Your task to perform on an android device: Open settings on Google Maps Image 0: 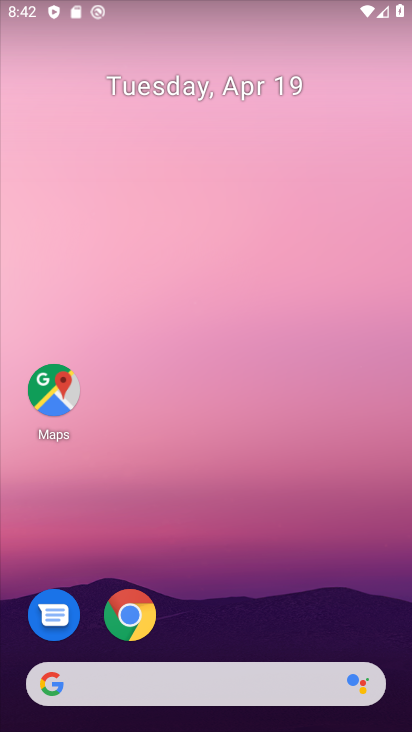
Step 0: click (38, 373)
Your task to perform on an android device: Open settings on Google Maps Image 1: 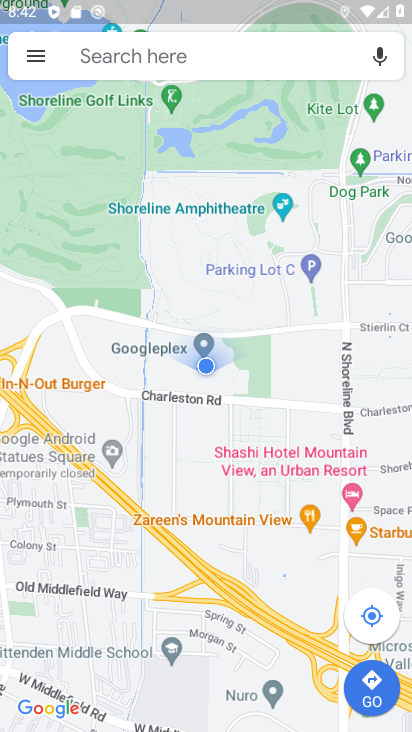
Step 1: click (36, 53)
Your task to perform on an android device: Open settings on Google Maps Image 2: 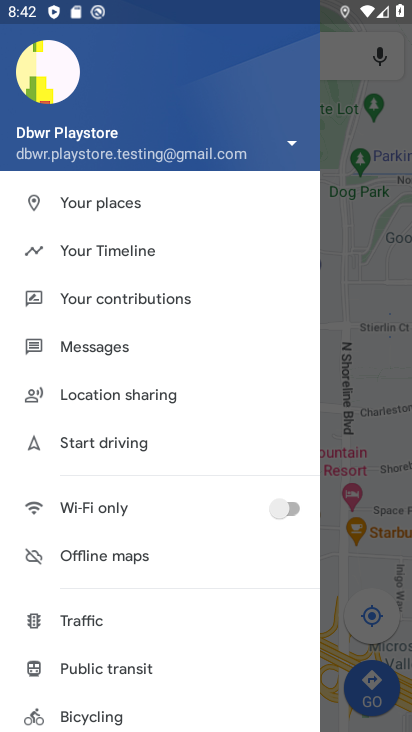
Step 2: drag from (198, 657) to (266, 110)
Your task to perform on an android device: Open settings on Google Maps Image 3: 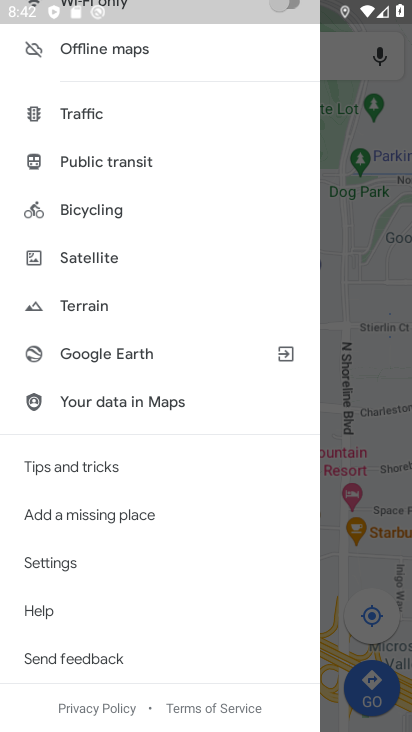
Step 3: click (69, 561)
Your task to perform on an android device: Open settings on Google Maps Image 4: 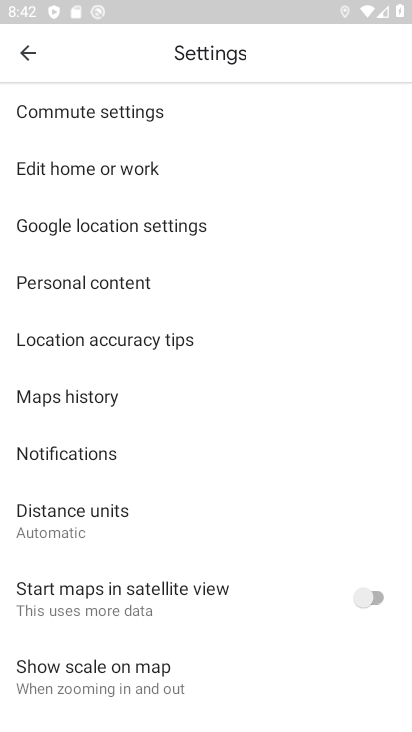
Step 4: task complete